Your task to perform on an android device: Go to settings Image 0: 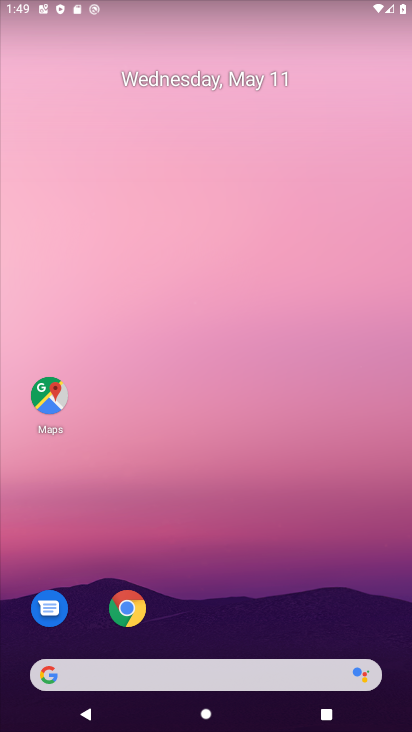
Step 0: drag from (196, 620) to (231, 64)
Your task to perform on an android device: Go to settings Image 1: 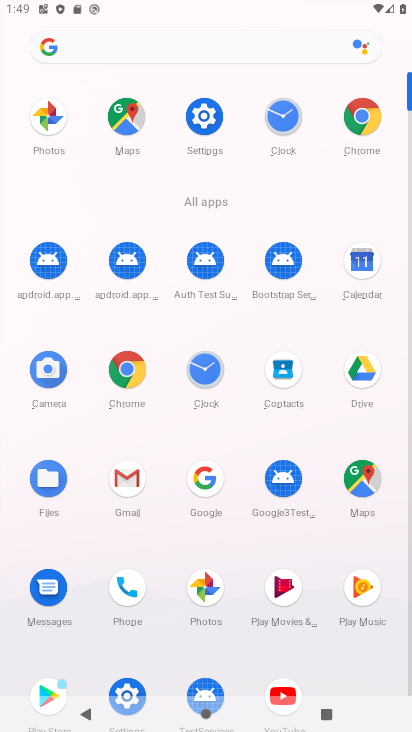
Step 1: click (205, 118)
Your task to perform on an android device: Go to settings Image 2: 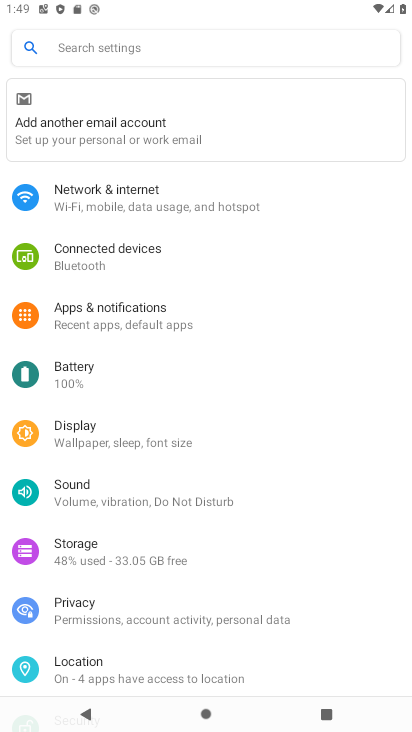
Step 2: task complete